Your task to perform on an android device: turn on improve location accuracy Image 0: 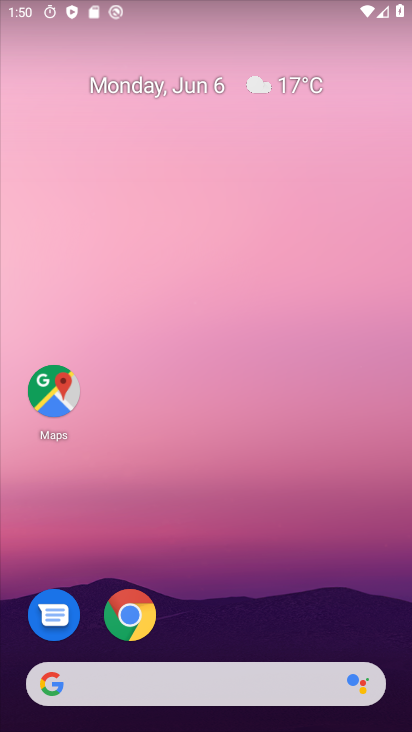
Step 0: click (395, 380)
Your task to perform on an android device: turn on improve location accuracy Image 1: 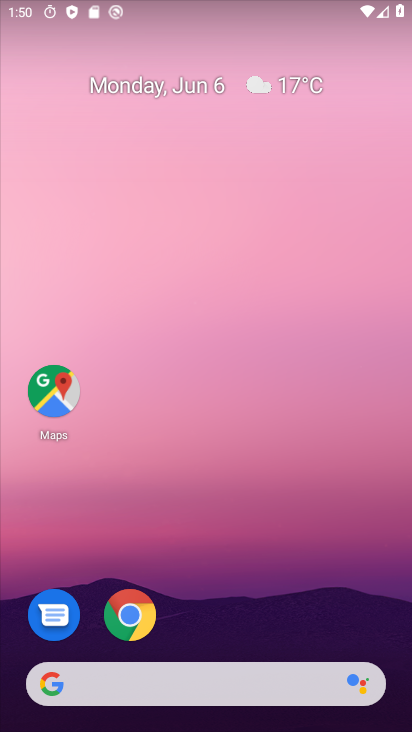
Step 1: drag from (200, 637) to (338, 109)
Your task to perform on an android device: turn on improve location accuracy Image 2: 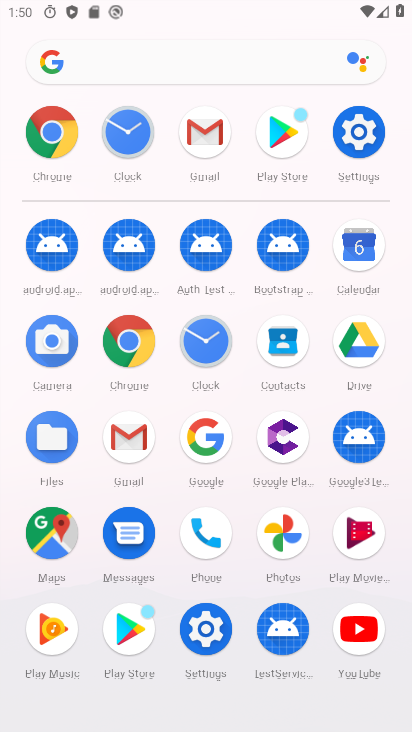
Step 2: click (359, 143)
Your task to perform on an android device: turn on improve location accuracy Image 3: 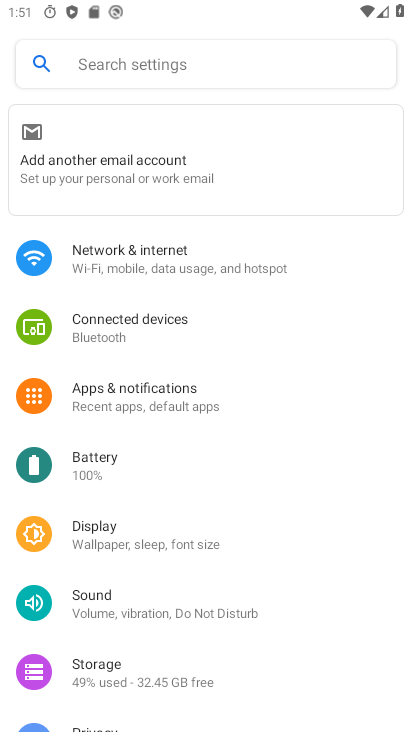
Step 3: drag from (145, 573) to (201, 296)
Your task to perform on an android device: turn on improve location accuracy Image 4: 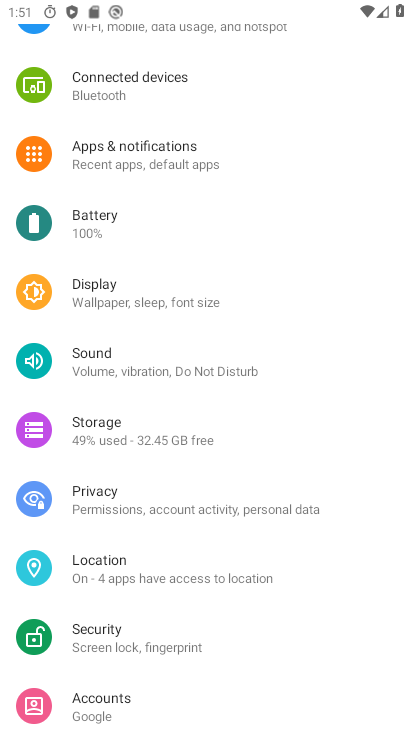
Step 4: drag from (180, 640) to (242, 298)
Your task to perform on an android device: turn on improve location accuracy Image 5: 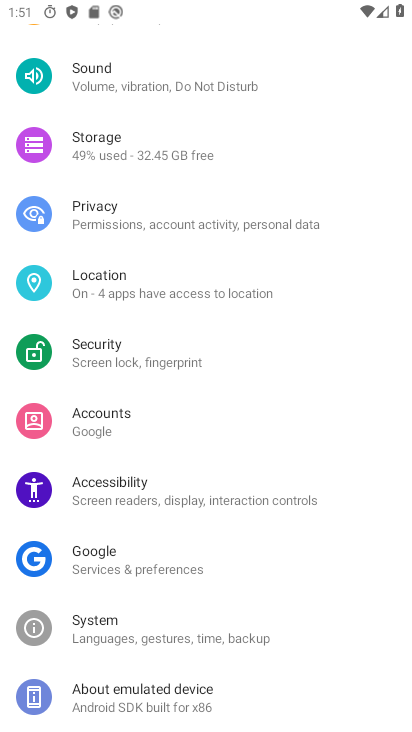
Step 5: click (139, 290)
Your task to perform on an android device: turn on improve location accuracy Image 6: 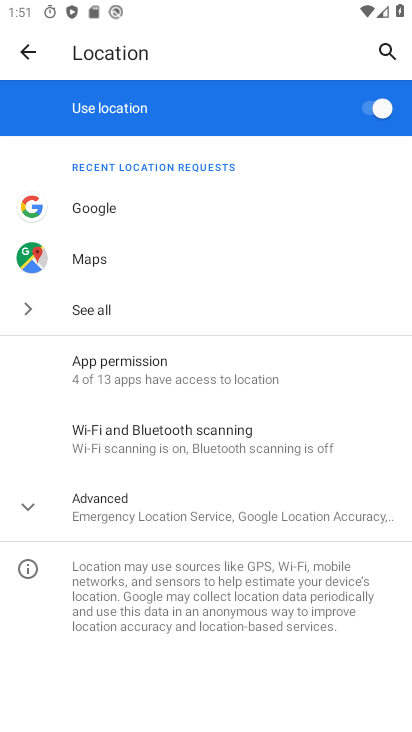
Step 6: click (115, 511)
Your task to perform on an android device: turn on improve location accuracy Image 7: 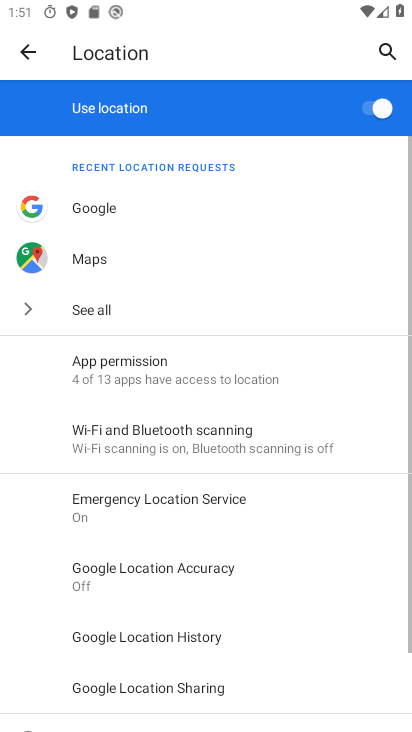
Step 7: drag from (207, 548) to (269, 243)
Your task to perform on an android device: turn on improve location accuracy Image 8: 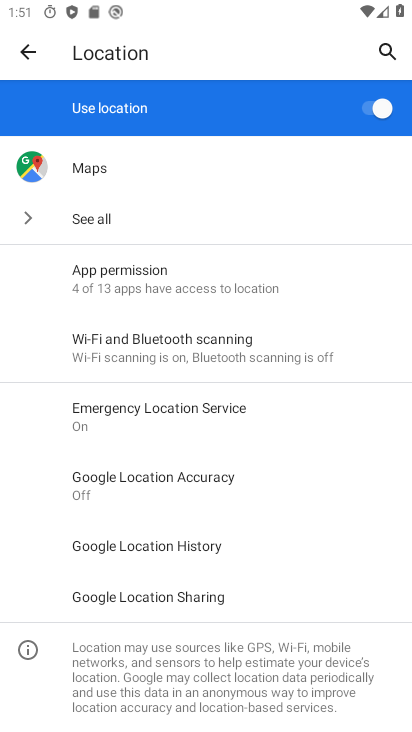
Step 8: click (206, 489)
Your task to perform on an android device: turn on improve location accuracy Image 9: 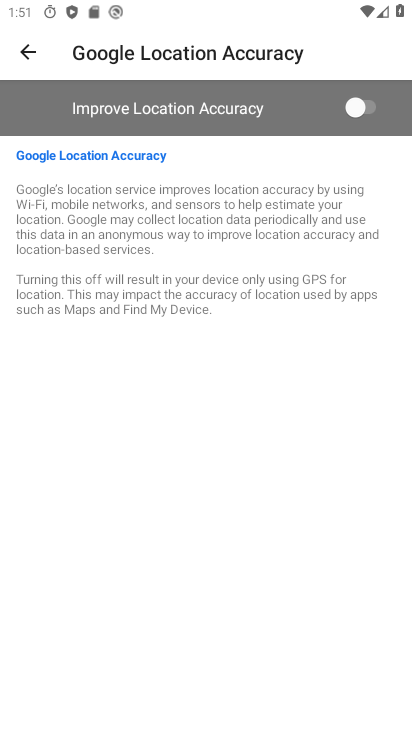
Step 9: click (354, 115)
Your task to perform on an android device: turn on improve location accuracy Image 10: 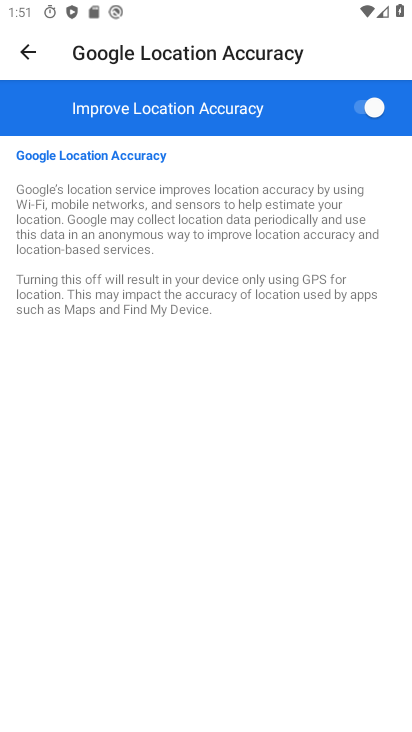
Step 10: task complete